Your task to perform on an android device: open the mobile data screen to see how much data has been used Image 0: 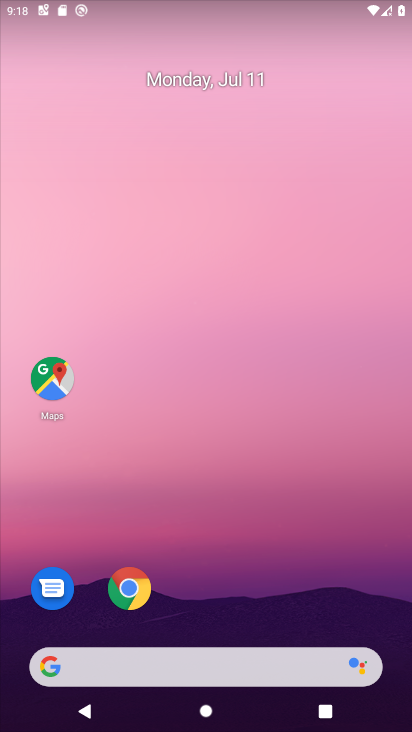
Step 0: drag from (215, 608) to (223, 199)
Your task to perform on an android device: open the mobile data screen to see how much data has been used Image 1: 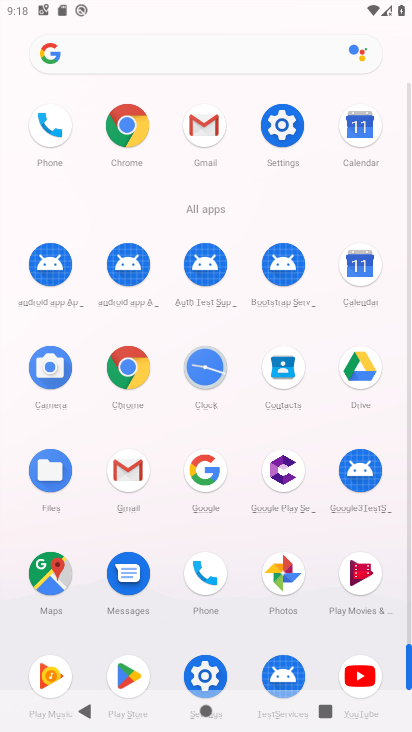
Step 1: click (274, 131)
Your task to perform on an android device: open the mobile data screen to see how much data has been used Image 2: 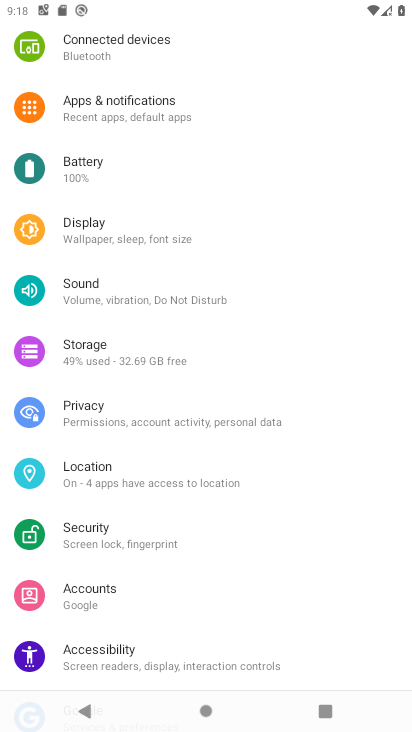
Step 2: drag from (188, 78) to (180, 522)
Your task to perform on an android device: open the mobile data screen to see how much data has been used Image 3: 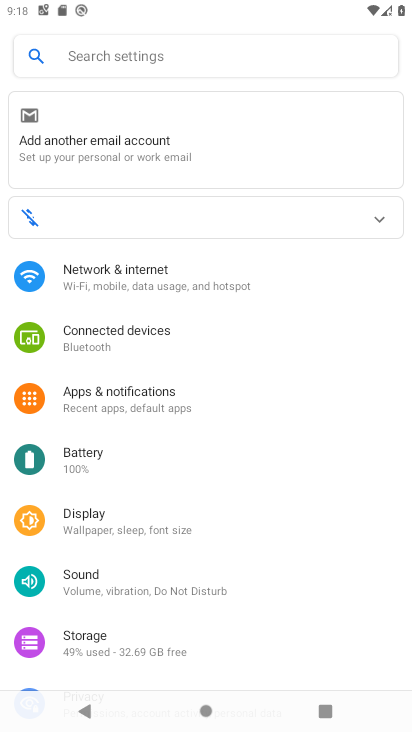
Step 3: click (186, 290)
Your task to perform on an android device: open the mobile data screen to see how much data has been used Image 4: 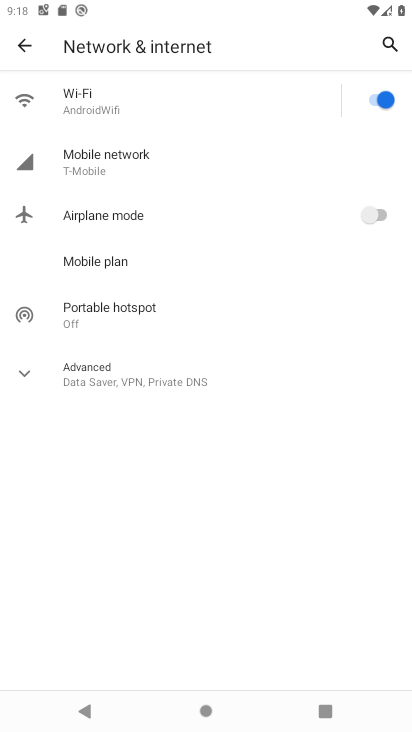
Step 4: click (145, 157)
Your task to perform on an android device: open the mobile data screen to see how much data has been used Image 5: 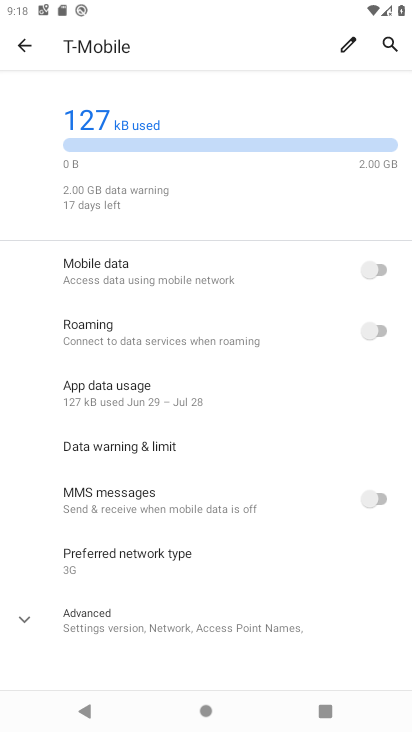
Step 5: task complete